Your task to perform on an android device: Open calendar and show me the fourth week of next month Image 0: 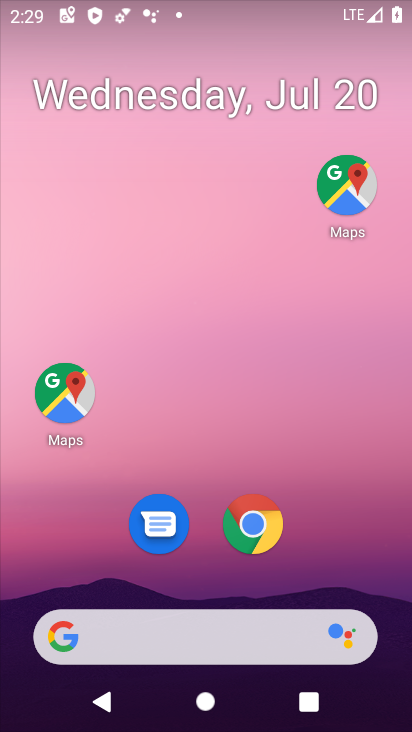
Step 0: drag from (323, 554) to (334, 184)
Your task to perform on an android device: Open calendar and show me the fourth week of next month Image 1: 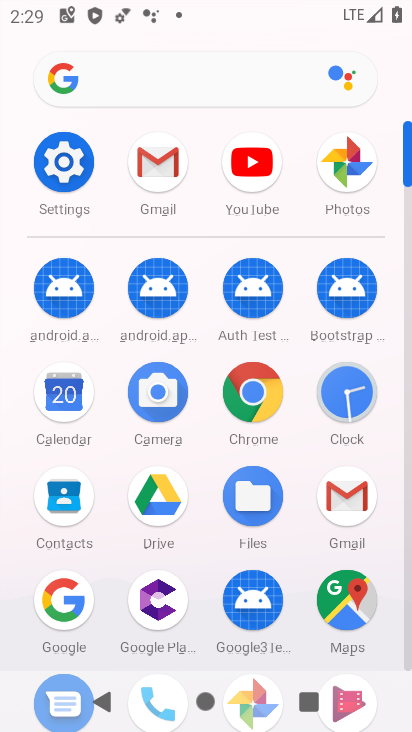
Step 1: click (75, 390)
Your task to perform on an android device: Open calendar and show me the fourth week of next month Image 2: 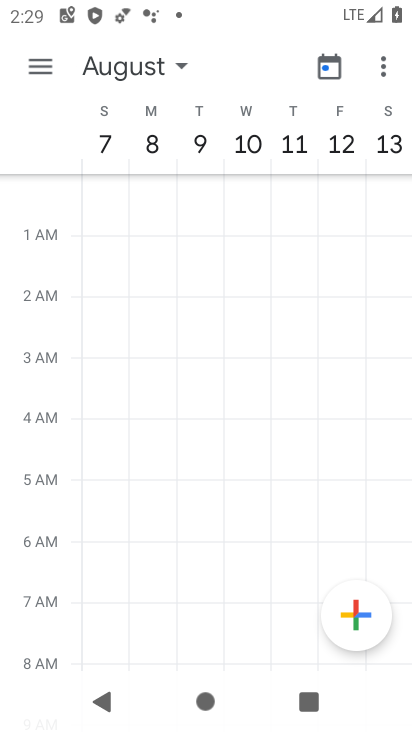
Step 2: task complete